Your task to perform on an android device: change alarm snooze length Image 0: 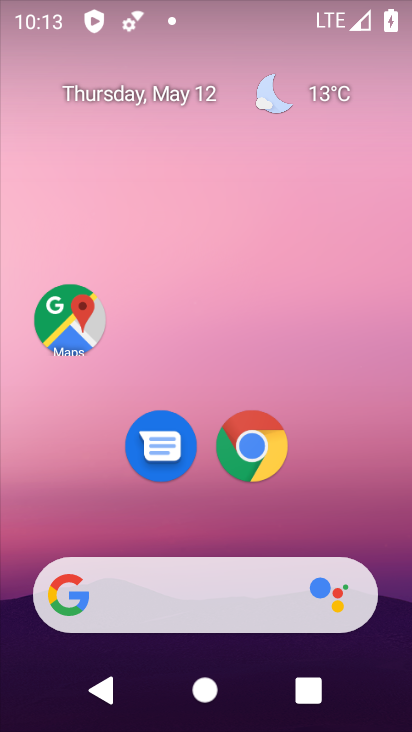
Step 0: drag from (287, 522) to (346, 1)
Your task to perform on an android device: change alarm snooze length Image 1: 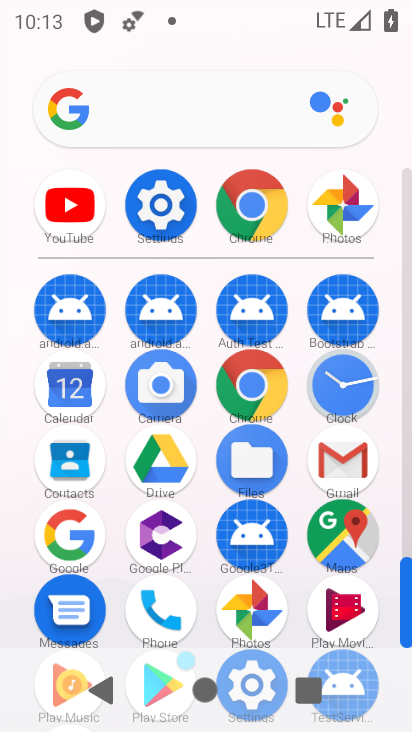
Step 1: click (334, 375)
Your task to perform on an android device: change alarm snooze length Image 2: 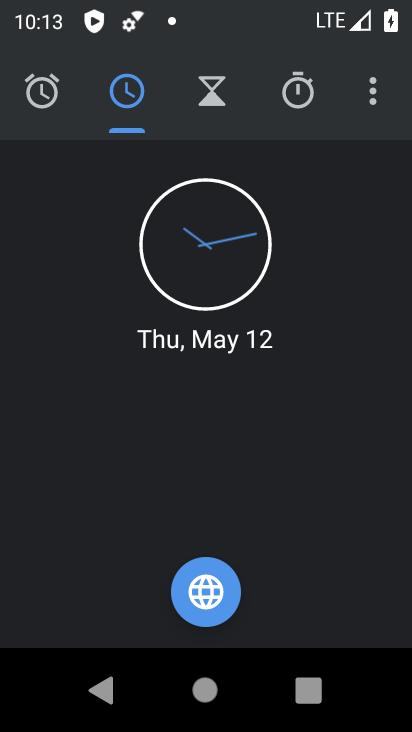
Step 2: click (381, 95)
Your task to perform on an android device: change alarm snooze length Image 3: 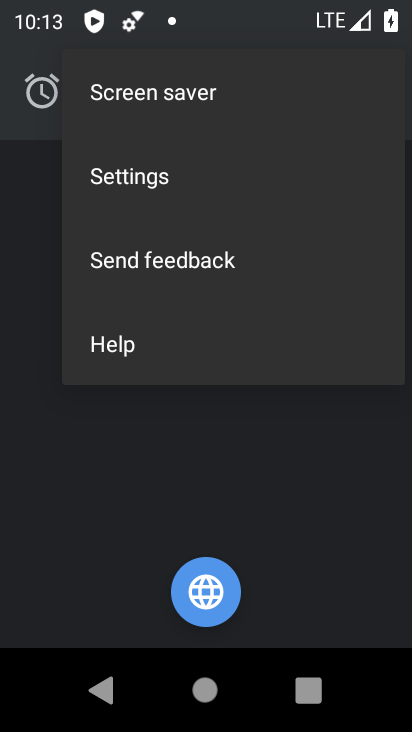
Step 3: click (253, 171)
Your task to perform on an android device: change alarm snooze length Image 4: 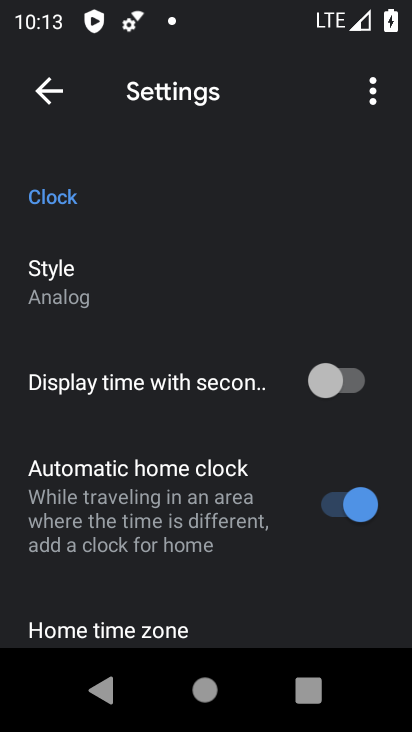
Step 4: drag from (173, 489) to (227, 88)
Your task to perform on an android device: change alarm snooze length Image 5: 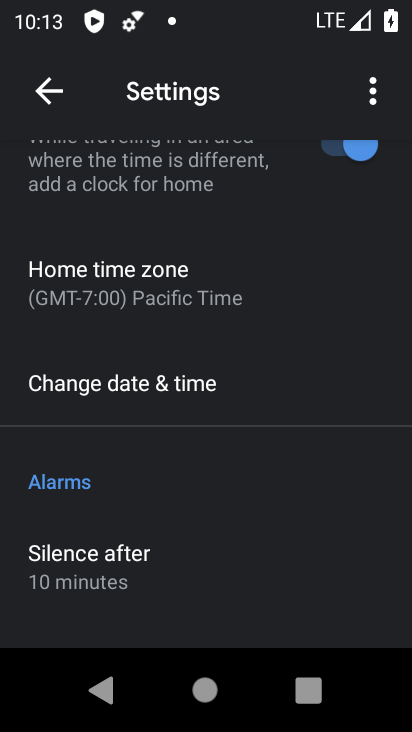
Step 5: drag from (172, 585) to (206, 98)
Your task to perform on an android device: change alarm snooze length Image 6: 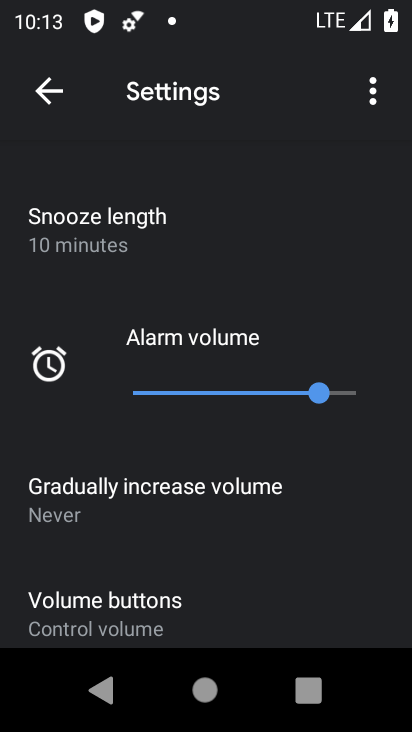
Step 6: click (178, 231)
Your task to perform on an android device: change alarm snooze length Image 7: 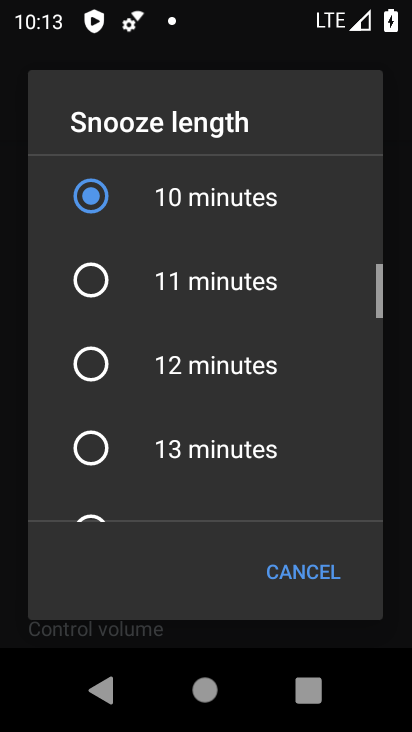
Step 7: click (104, 275)
Your task to perform on an android device: change alarm snooze length Image 8: 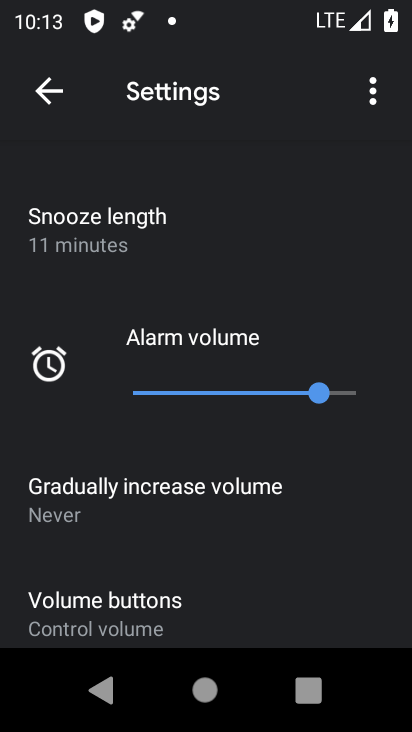
Step 8: task complete